Your task to perform on an android device: install app "Upside-Cash back on gas & food" Image 0: 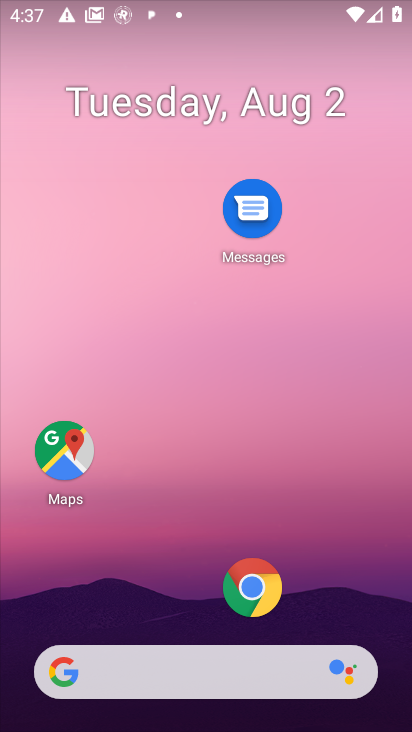
Step 0: drag from (162, 580) to (157, 247)
Your task to perform on an android device: install app "Upside-Cash back on gas & food" Image 1: 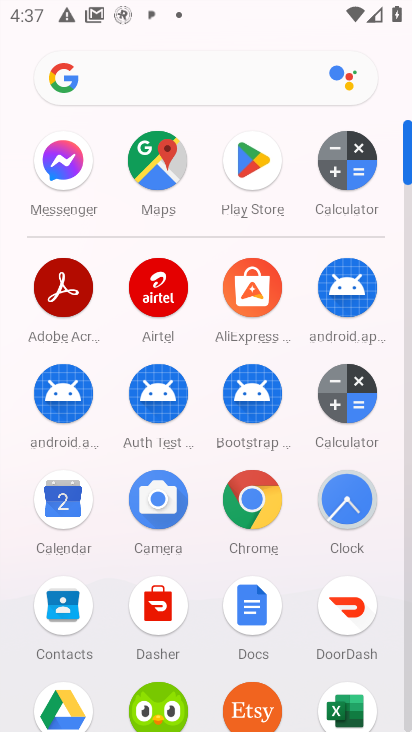
Step 1: click (255, 172)
Your task to perform on an android device: install app "Upside-Cash back on gas & food" Image 2: 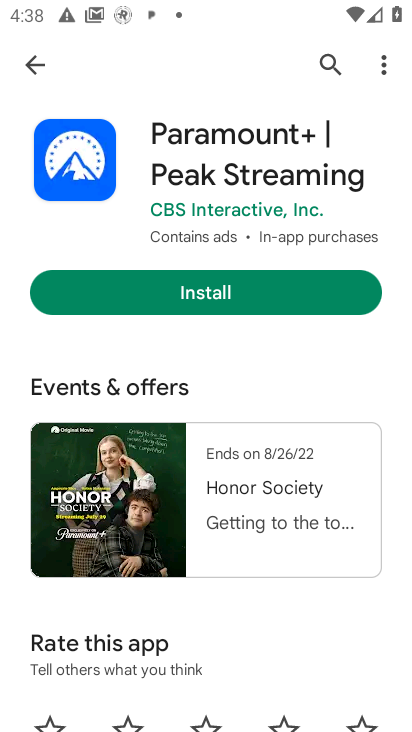
Step 2: click (340, 69)
Your task to perform on an android device: install app "Upside-Cash back on gas & food" Image 3: 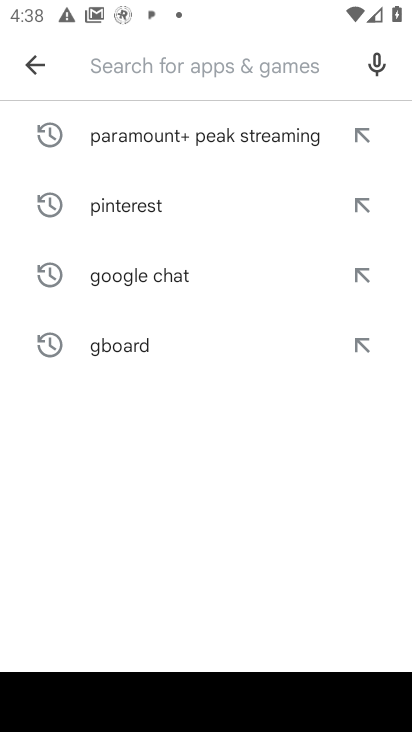
Step 3: type "Upside-Cash back on gas & food"
Your task to perform on an android device: install app "Upside-Cash back on gas & food" Image 4: 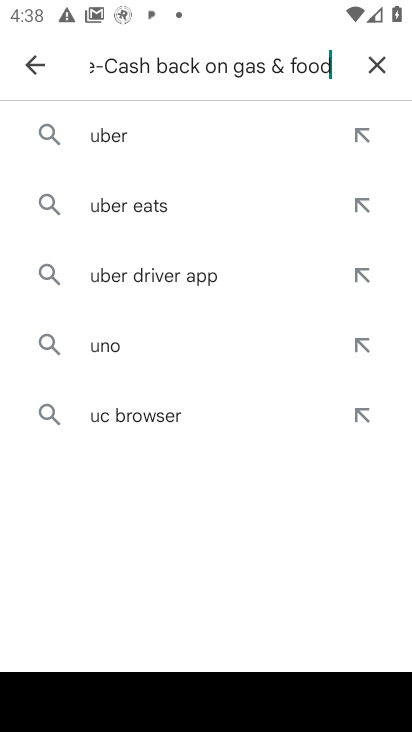
Step 4: type ""
Your task to perform on an android device: install app "Upside-Cash back on gas & food" Image 5: 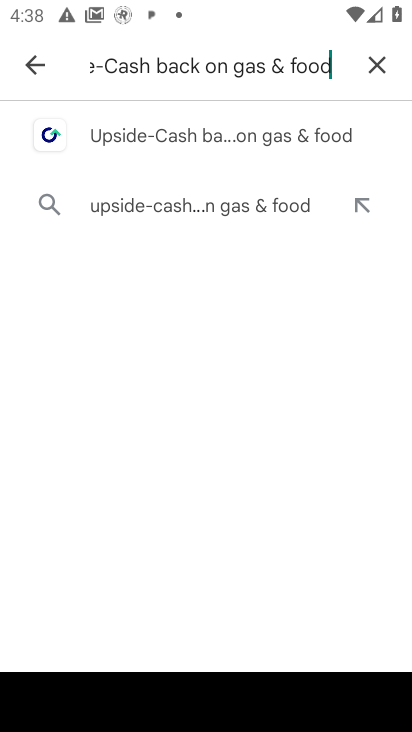
Step 5: click (237, 132)
Your task to perform on an android device: install app "Upside-Cash back on gas & food" Image 6: 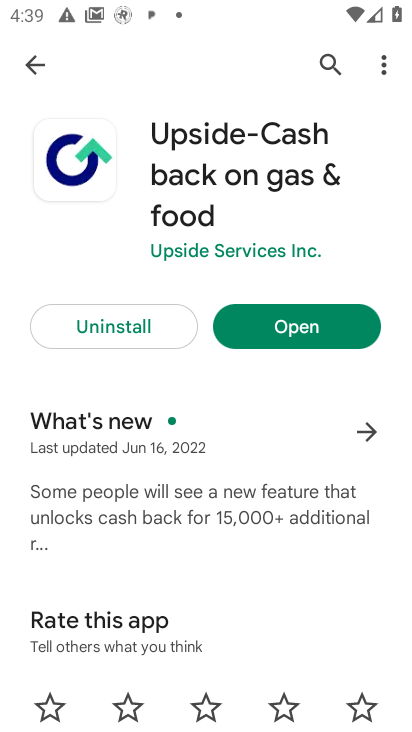
Step 6: task complete